Your task to perform on an android device: remove spam from my inbox in the gmail app Image 0: 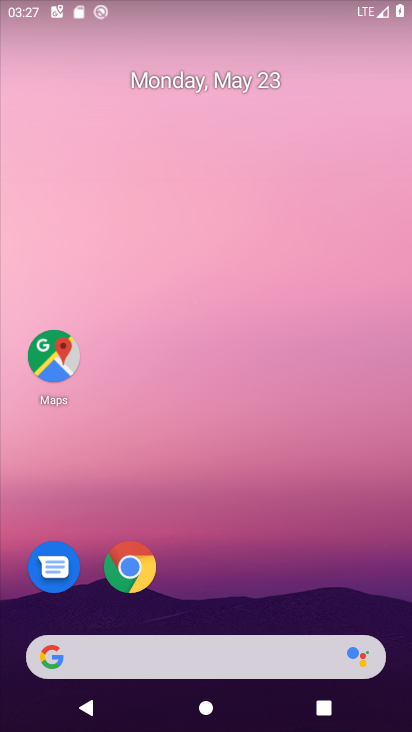
Step 0: drag from (8, 655) to (297, 97)
Your task to perform on an android device: remove spam from my inbox in the gmail app Image 1: 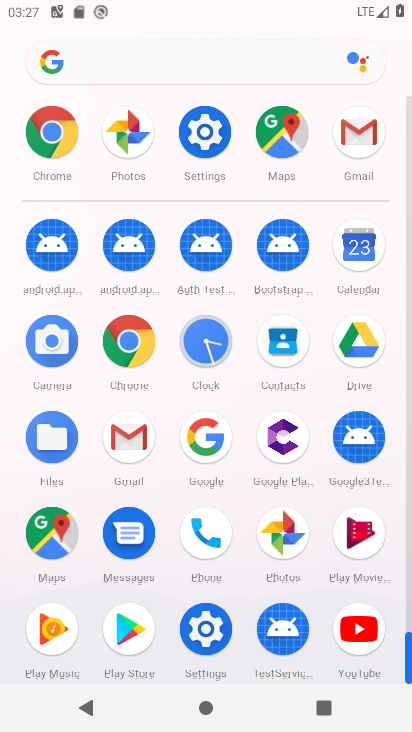
Step 1: click (364, 125)
Your task to perform on an android device: remove spam from my inbox in the gmail app Image 2: 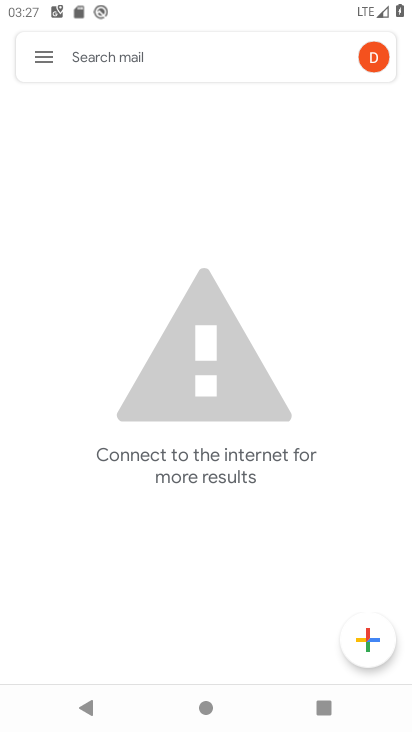
Step 2: click (50, 52)
Your task to perform on an android device: remove spam from my inbox in the gmail app Image 3: 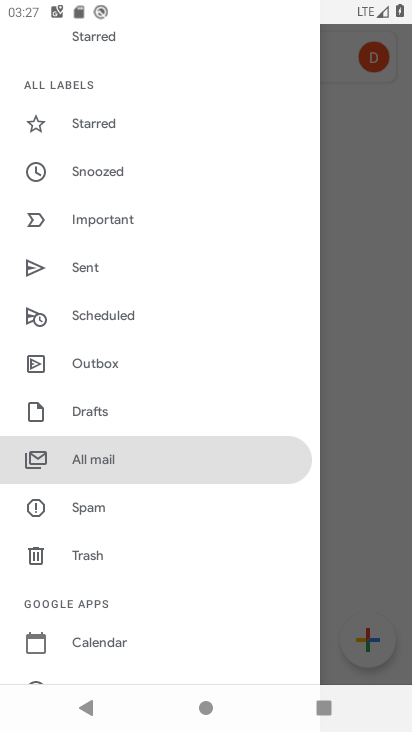
Step 3: click (100, 522)
Your task to perform on an android device: remove spam from my inbox in the gmail app Image 4: 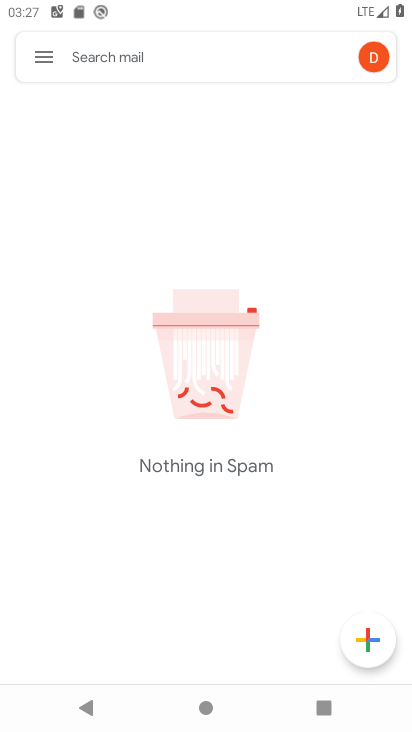
Step 4: task complete